Your task to perform on an android device: set the timer Image 0: 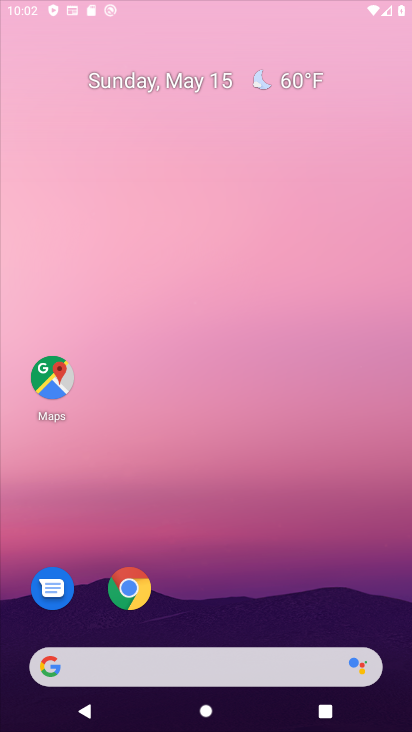
Step 0: drag from (247, 604) to (267, 298)
Your task to perform on an android device: set the timer Image 1: 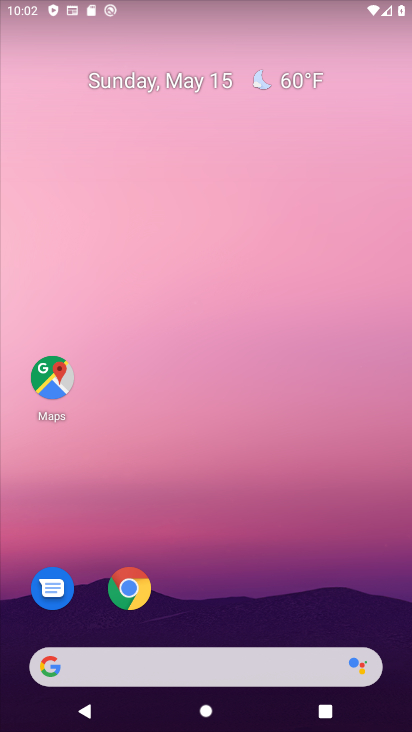
Step 1: drag from (229, 625) to (238, 26)
Your task to perform on an android device: set the timer Image 2: 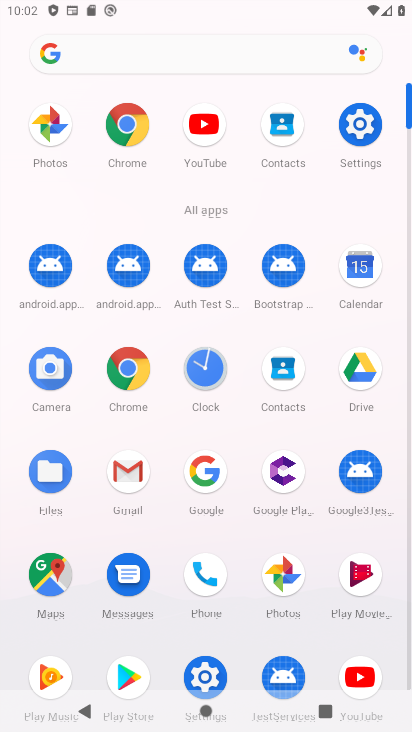
Step 2: click (217, 366)
Your task to perform on an android device: set the timer Image 3: 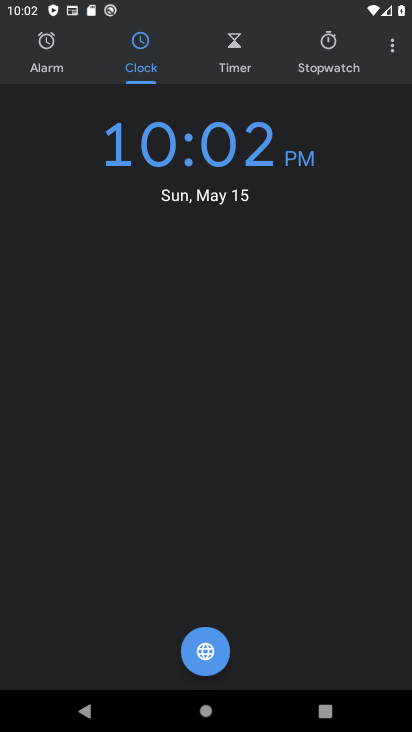
Step 3: click (240, 47)
Your task to perform on an android device: set the timer Image 4: 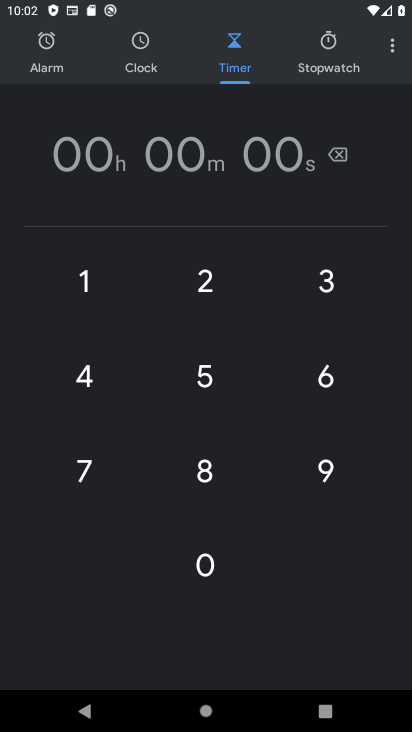
Step 4: type "10000"
Your task to perform on an android device: set the timer Image 5: 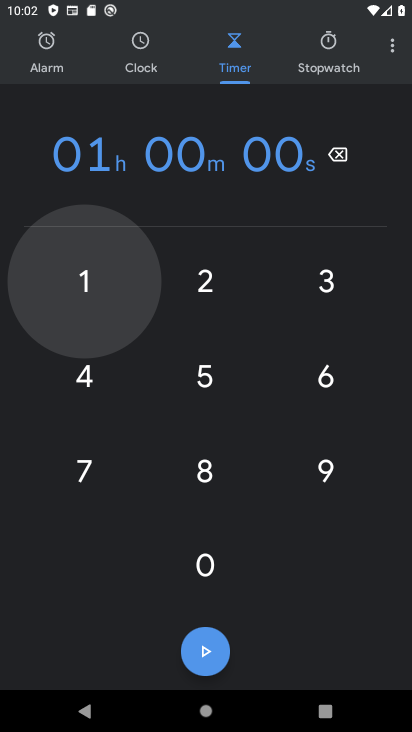
Step 5: click (223, 645)
Your task to perform on an android device: set the timer Image 6: 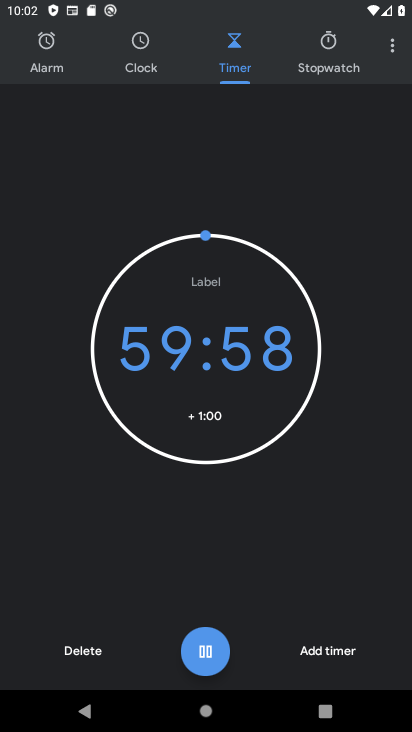
Step 6: task complete